Your task to perform on an android device: Open Youtube and go to "Your channel" Image 0: 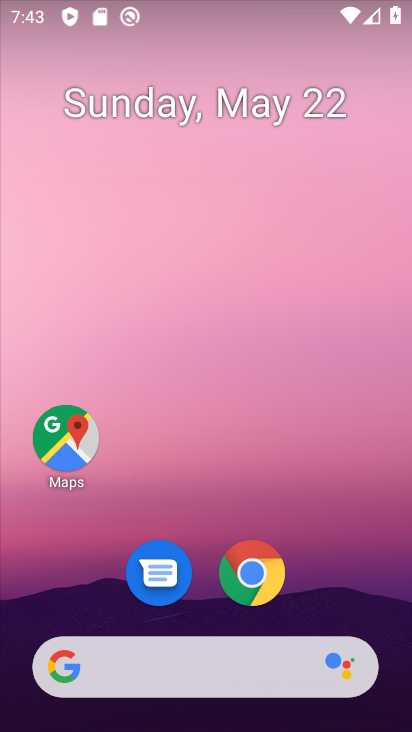
Step 0: drag from (381, 592) to (368, 93)
Your task to perform on an android device: Open Youtube and go to "Your channel" Image 1: 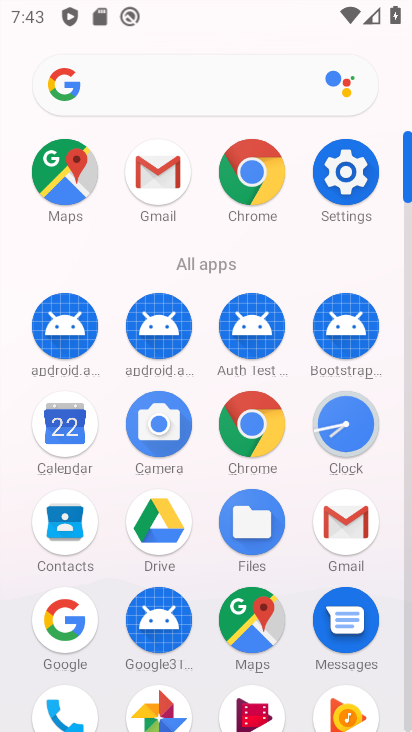
Step 1: drag from (313, 606) to (341, 199)
Your task to perform on an android device: Open Youtube and go to "Your channel" Image 2: 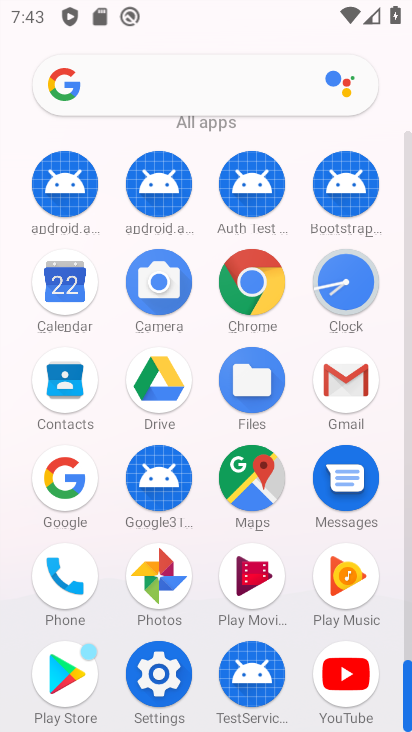
Step 2: click (336, 676)
Your task to perform on an android device: Open Youtube and go to "Your channel" Image 3: 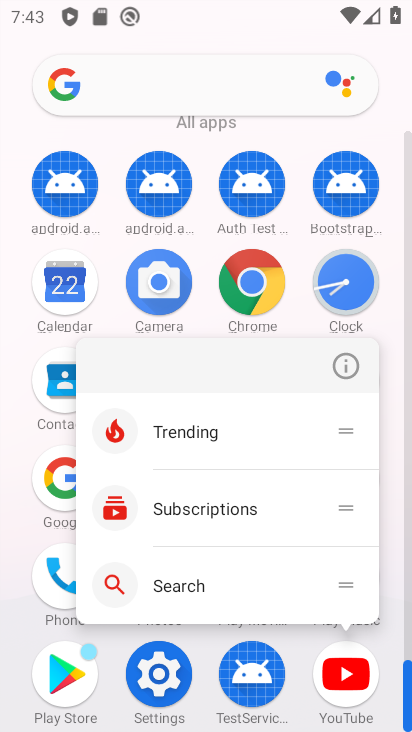
Step 3: click (332, 683)
Your task to perform on an android device: Open Youtube and go to "Your channel" Image 4: 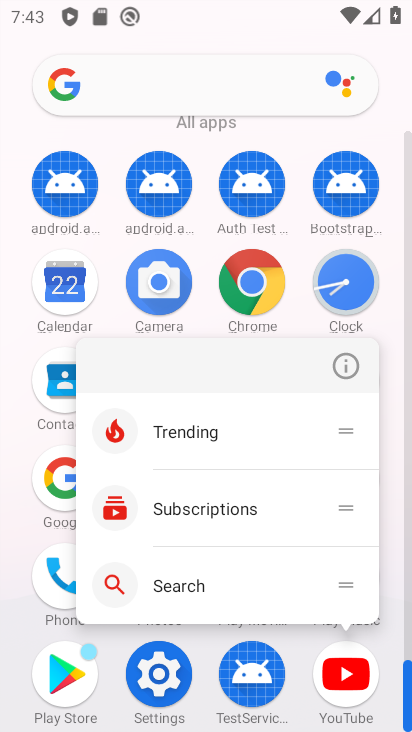
Step 4: click (327, 685)
Your task to perform on an android device: Open Youtube and go to "Your channel" Image 5: 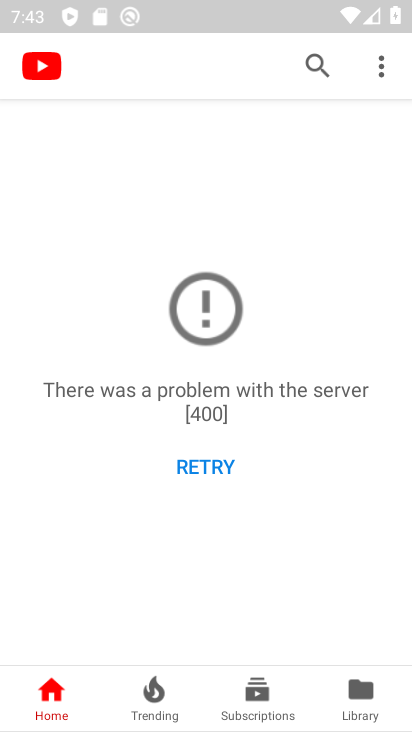
Step 5: click (364, 698)
Your task to perform on an android device: Open Youtube and go to "Your channel" Image 6: 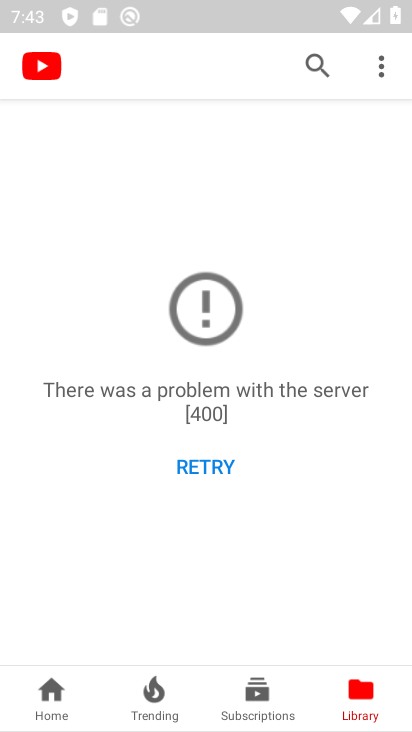
Step 6: task complete